Your task to perform on an android device: Clear all items from cart on amazon. Search for apple airpods on amazon, select the first entry, add it to the cart, then select checkout. Image 0: 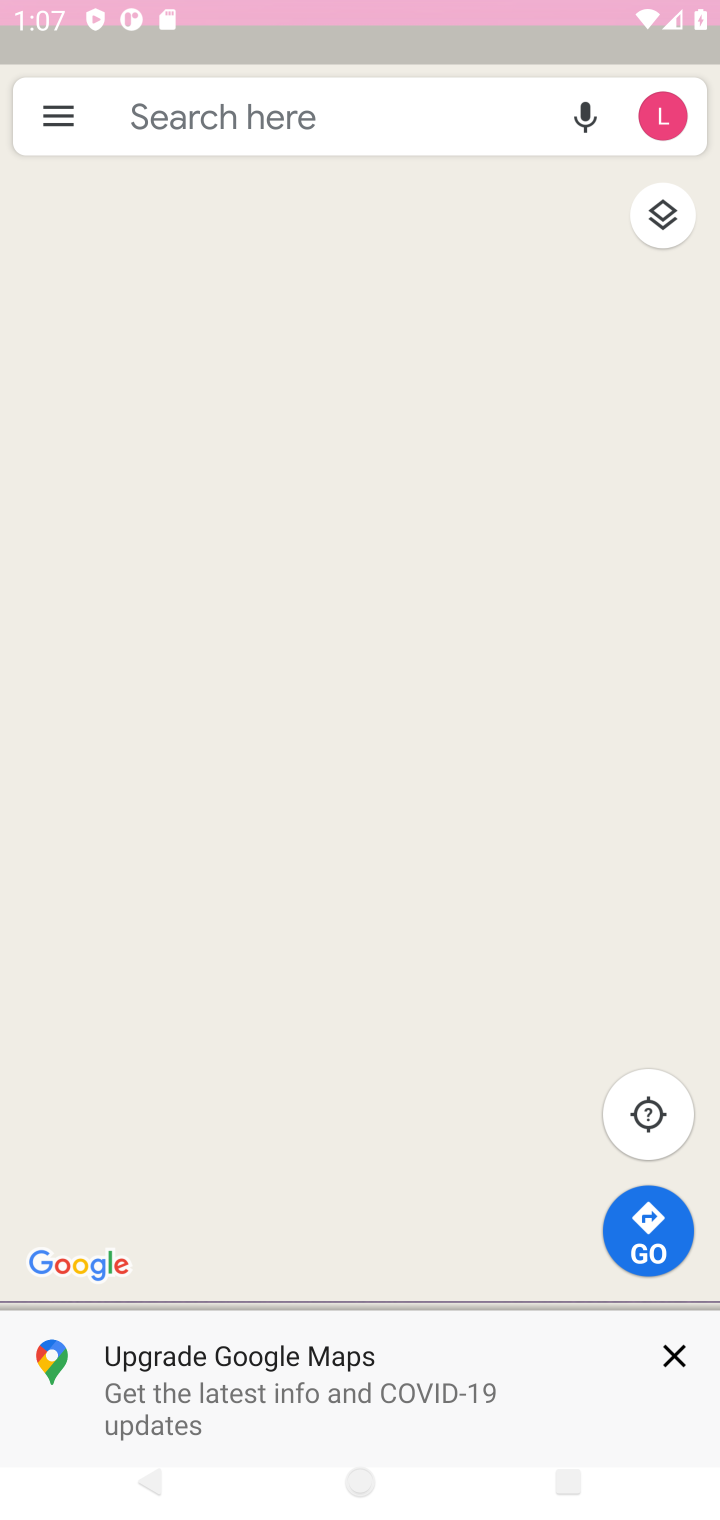
Step 0: press home button
Your task to perform on an android device: Clear all items from cart on amazon. Search for apple airpods on amazon, select the first entry, add it to the cart, then select checkout. Image 1: 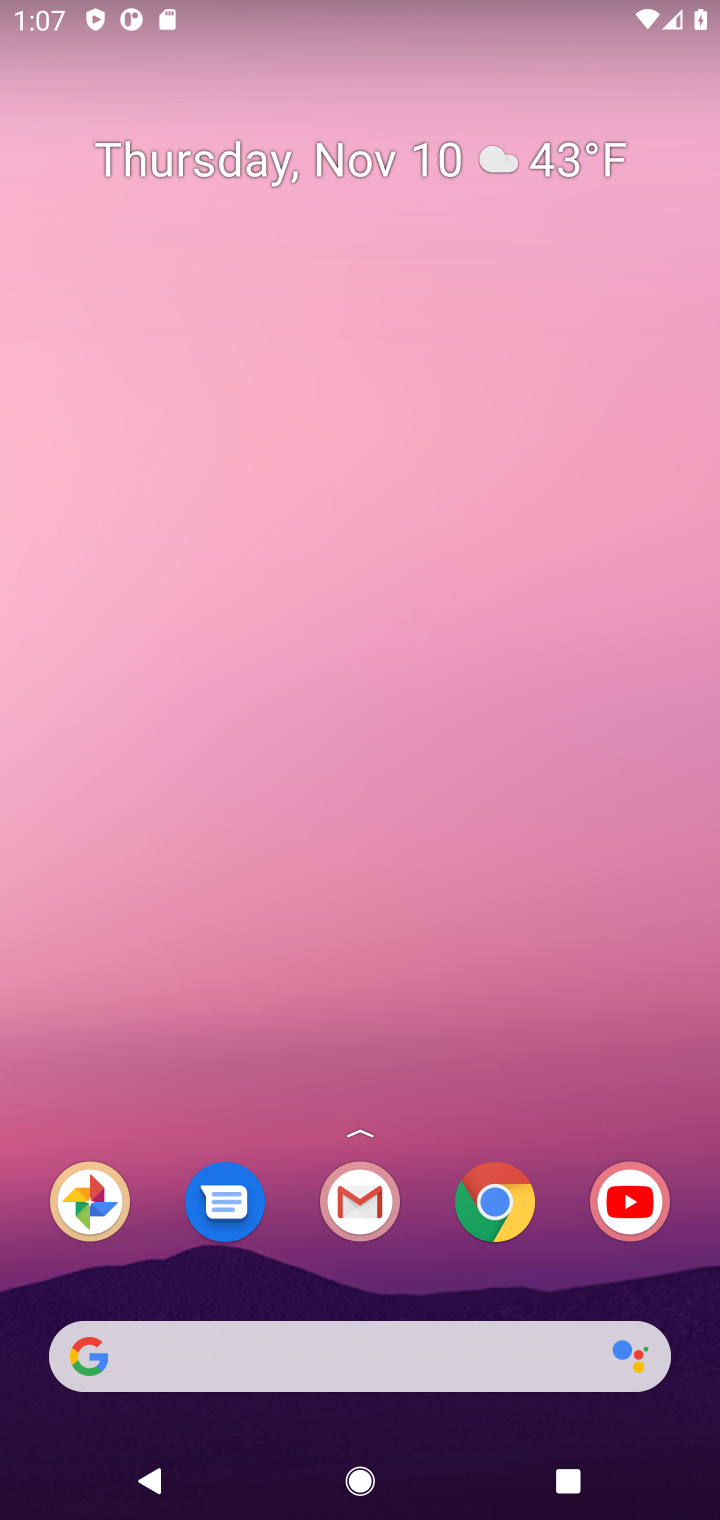
Step 1: click (497, 1196)
Your task to perform on an android device: Clear all items from cart on amazon. Search for apple airpods on amazon, select the first entry, add it to the cart, then select checkout. Image 2: 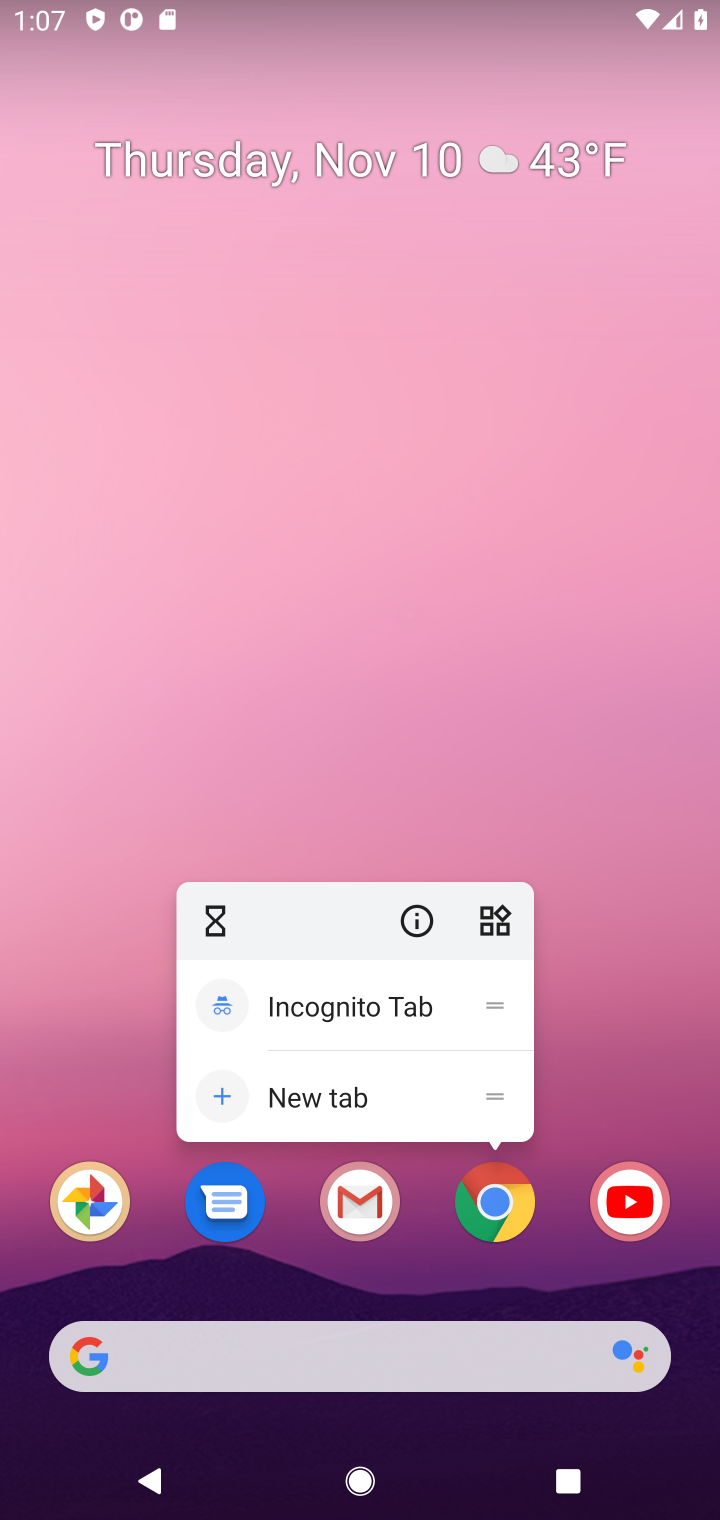
Step 2: click (504, 1201)
Your task to perform on an android device: Clear all items from cart on amazon. Search for apple airpods on amazon, select the first entry, add it to the cart, then select checkout. Image 3: 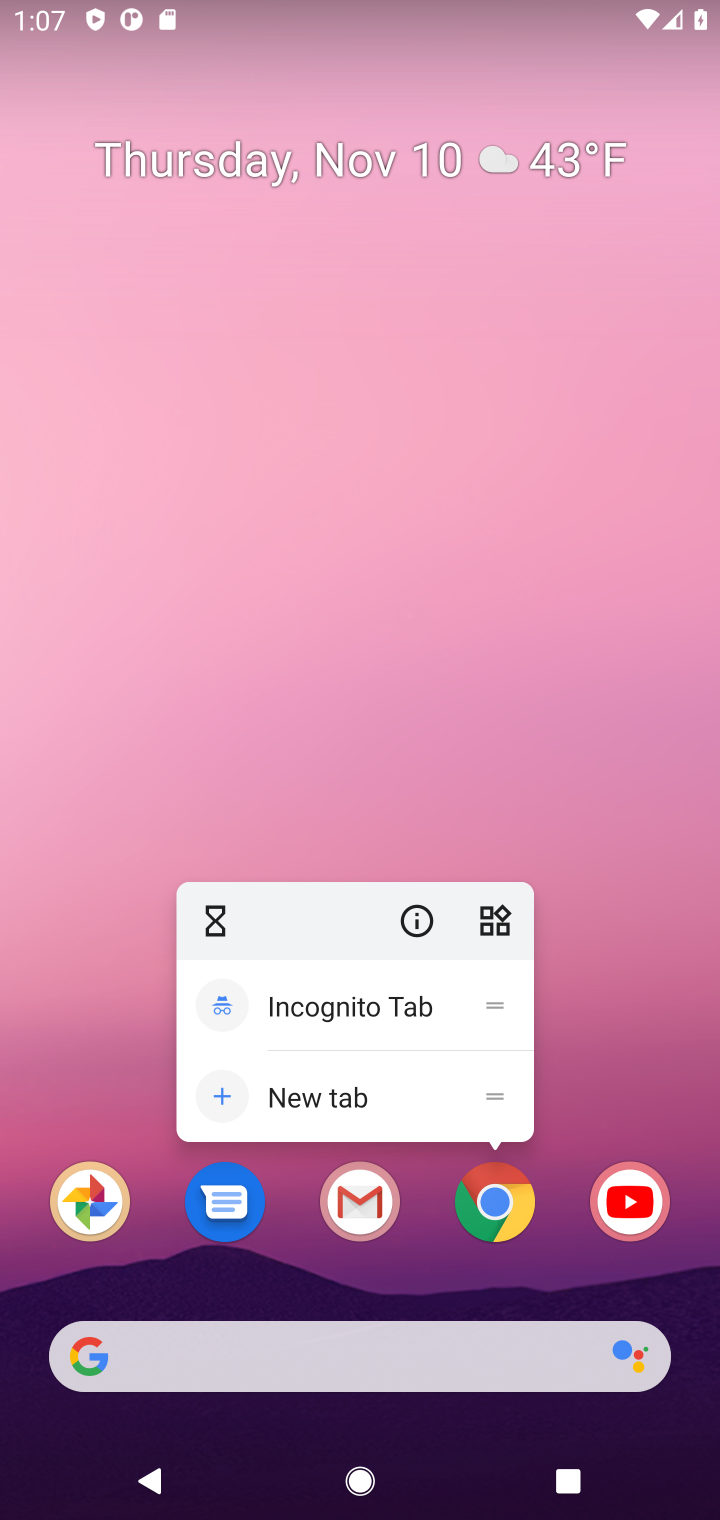
Step 3: click (504, 1201)
Your task to perform on an android device: Clear all items from cart on amazon. Search for apple airpods on amazon, select the first entry, add it to the cart, then select checkout. Image 4: 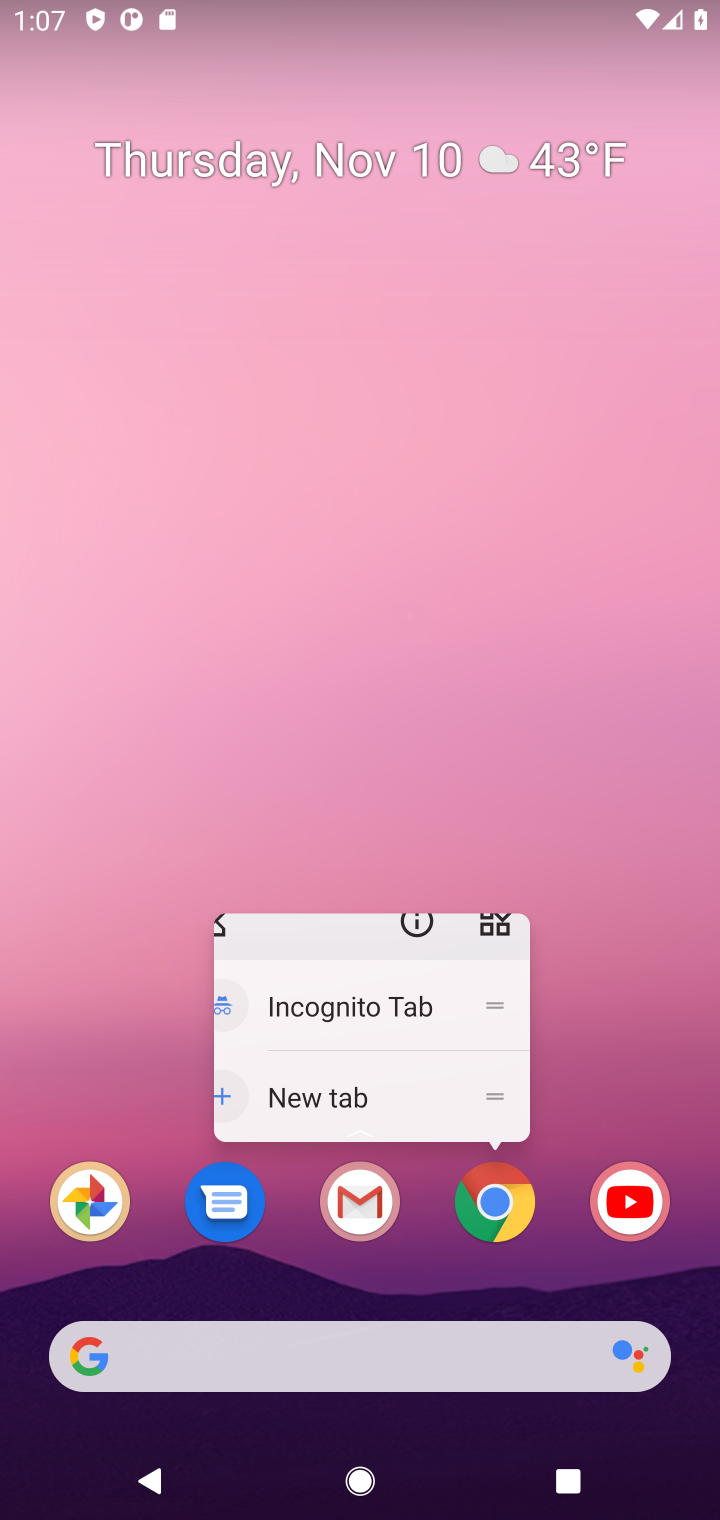
Step 4: click (504, 1201)
Your task to perform on an android device: Clear all items from cart on amazon. Search for apple airpods on amazon, select the first entry, add it to the cart, then select checkout. Image 5: 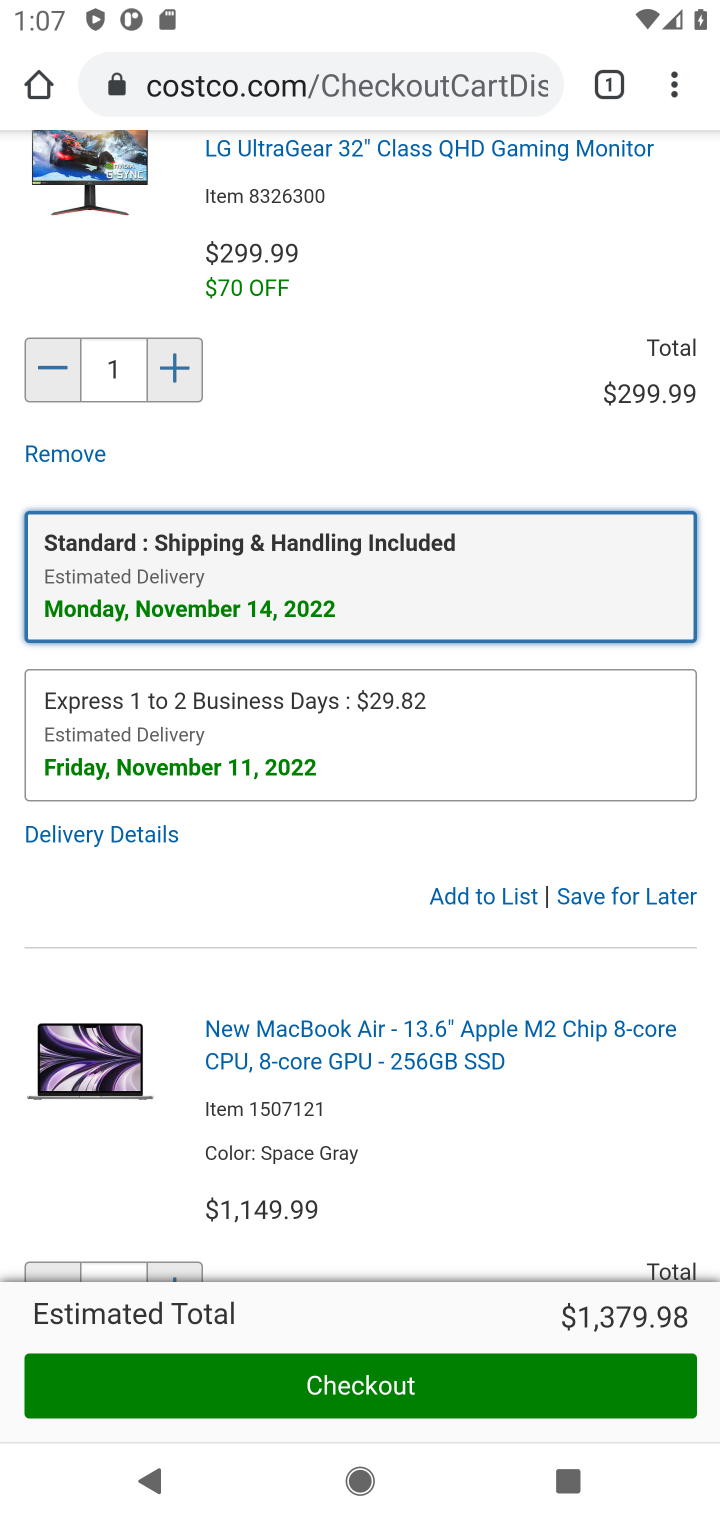
Step 5: click (282, 75)
Your task to perform on an android device: Clear all items from cart on amazon. Search for apple airpods on amazon, select the first entry, add it to the cart, then select checkout. Image 6: 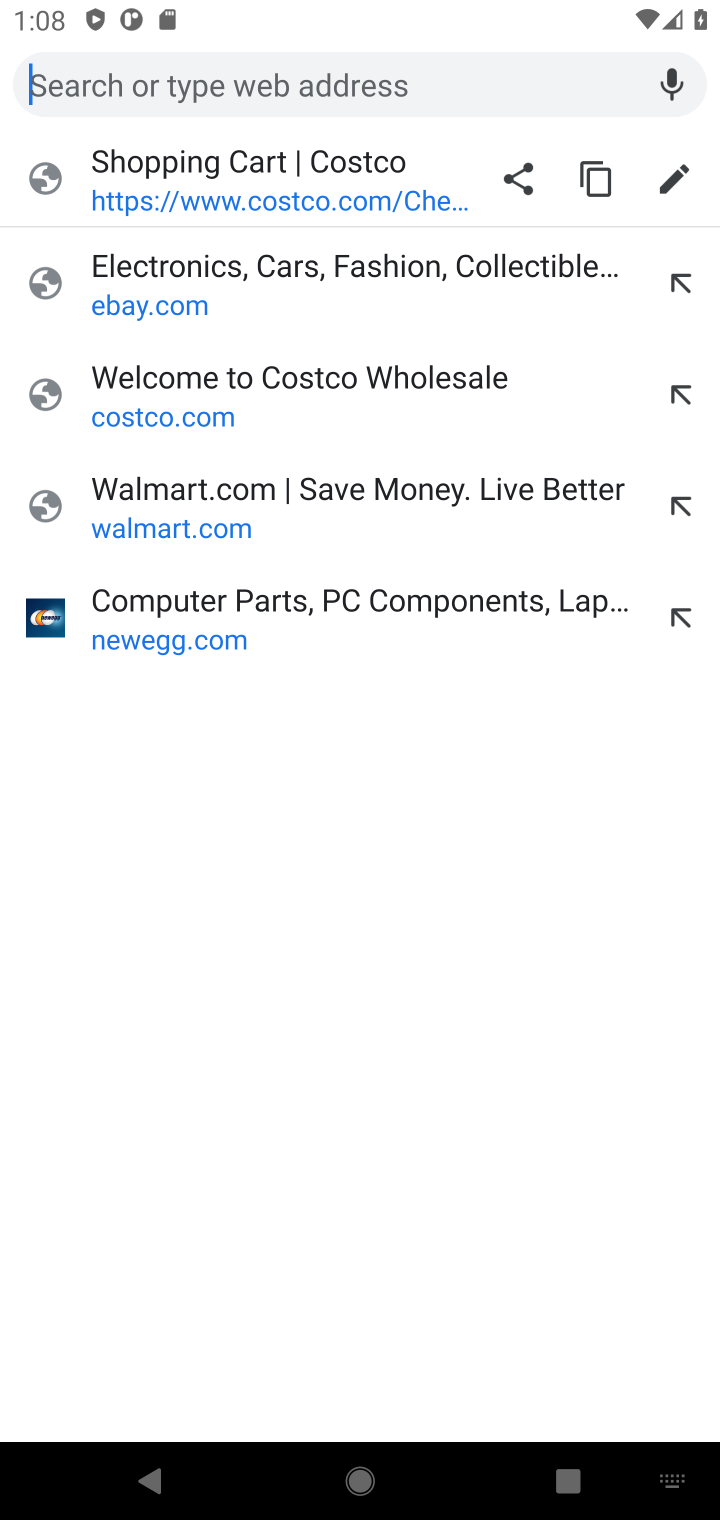
Step 6: type "amazon"
Your task to perform on an android device: Clear all items from cart on amazon. Search for apple airpods on amazon, select the first entry, add it to the cart, then select checkout. Image 7: 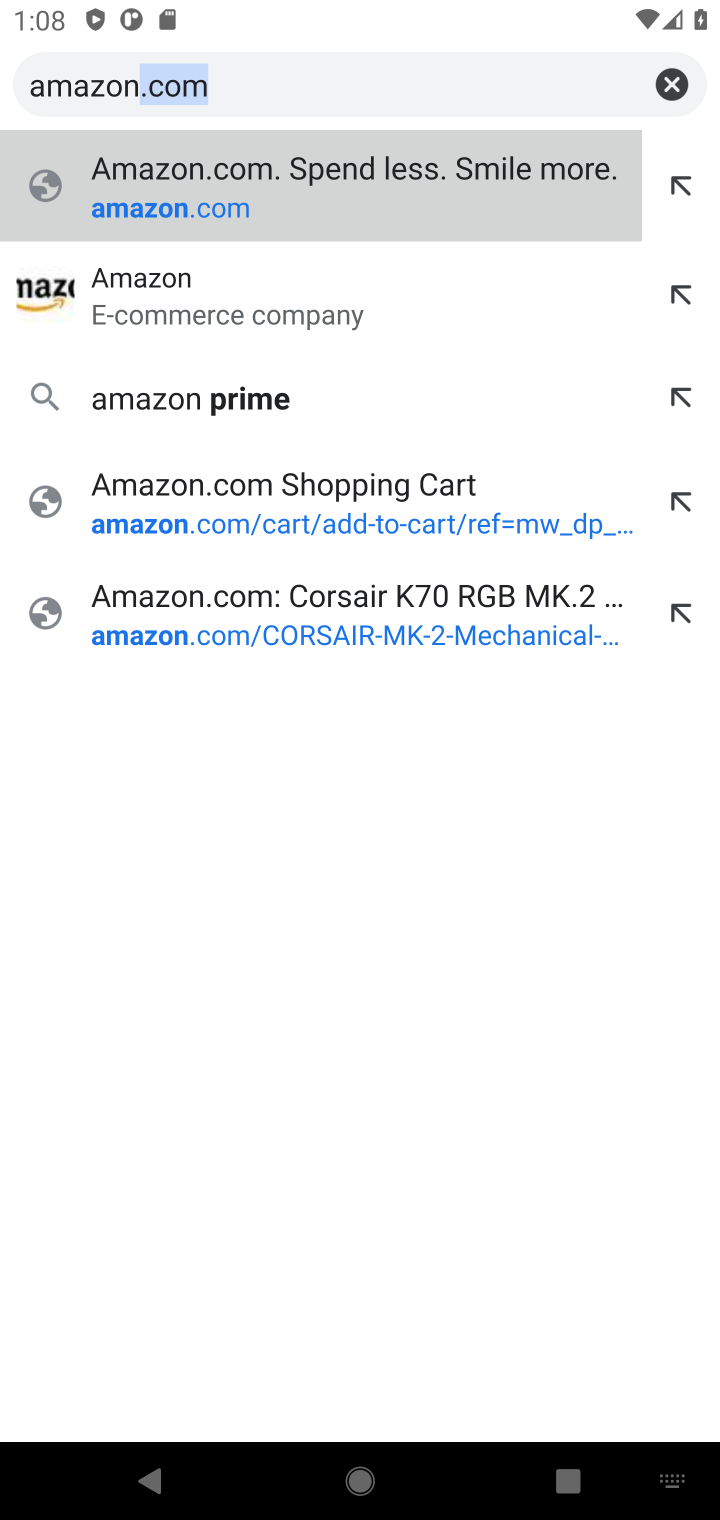
Step 7: press enter
Your task to perform on an android device: Clear all items from cart on amazon. Search for apple airpods on amazon, select the first entry, add it to the cart, then select checkout. Image 8: 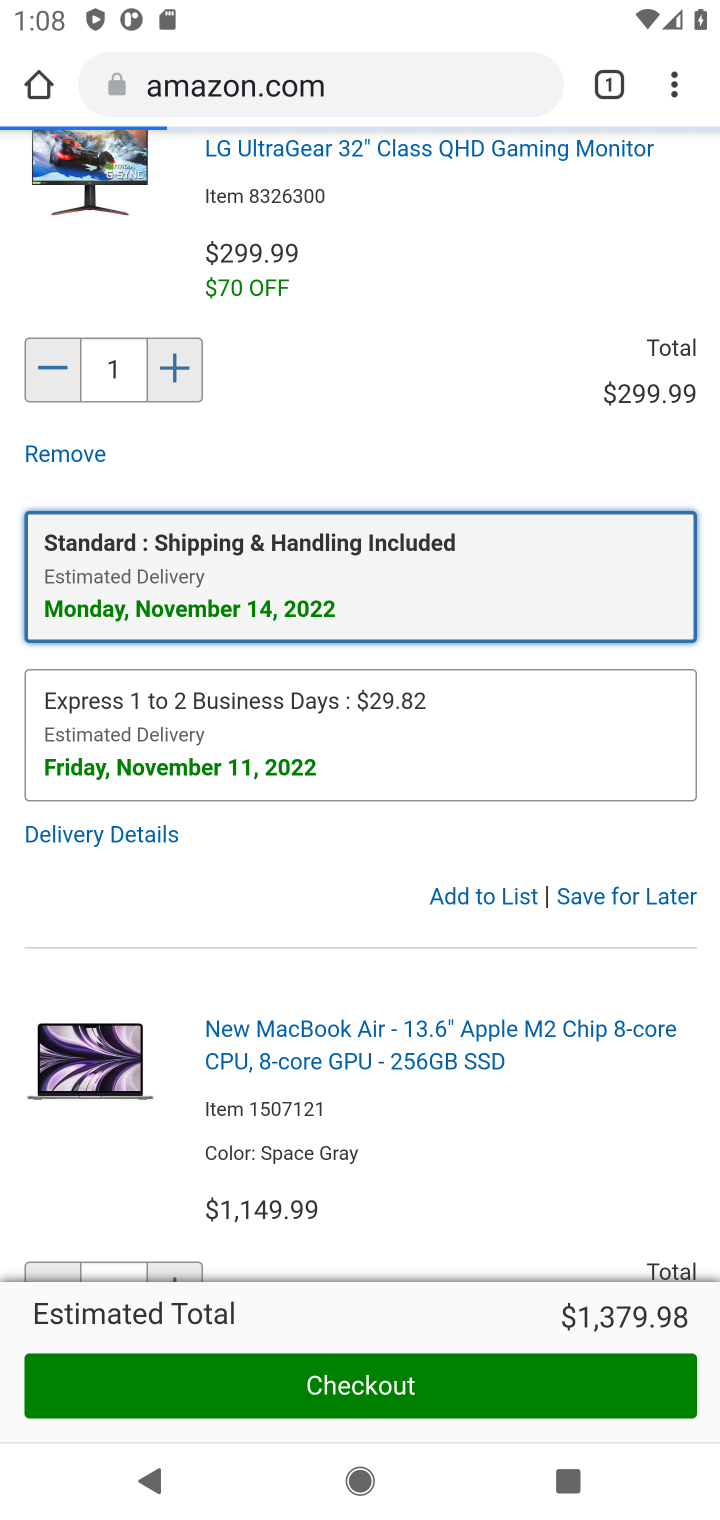
Step 8: click (449, 91)
Your task to perform on an android device: Clear all items from cart on amazon. Search for apple airpods on amazon, select the first entry, add it to the cart, then select checkout. Image 9: 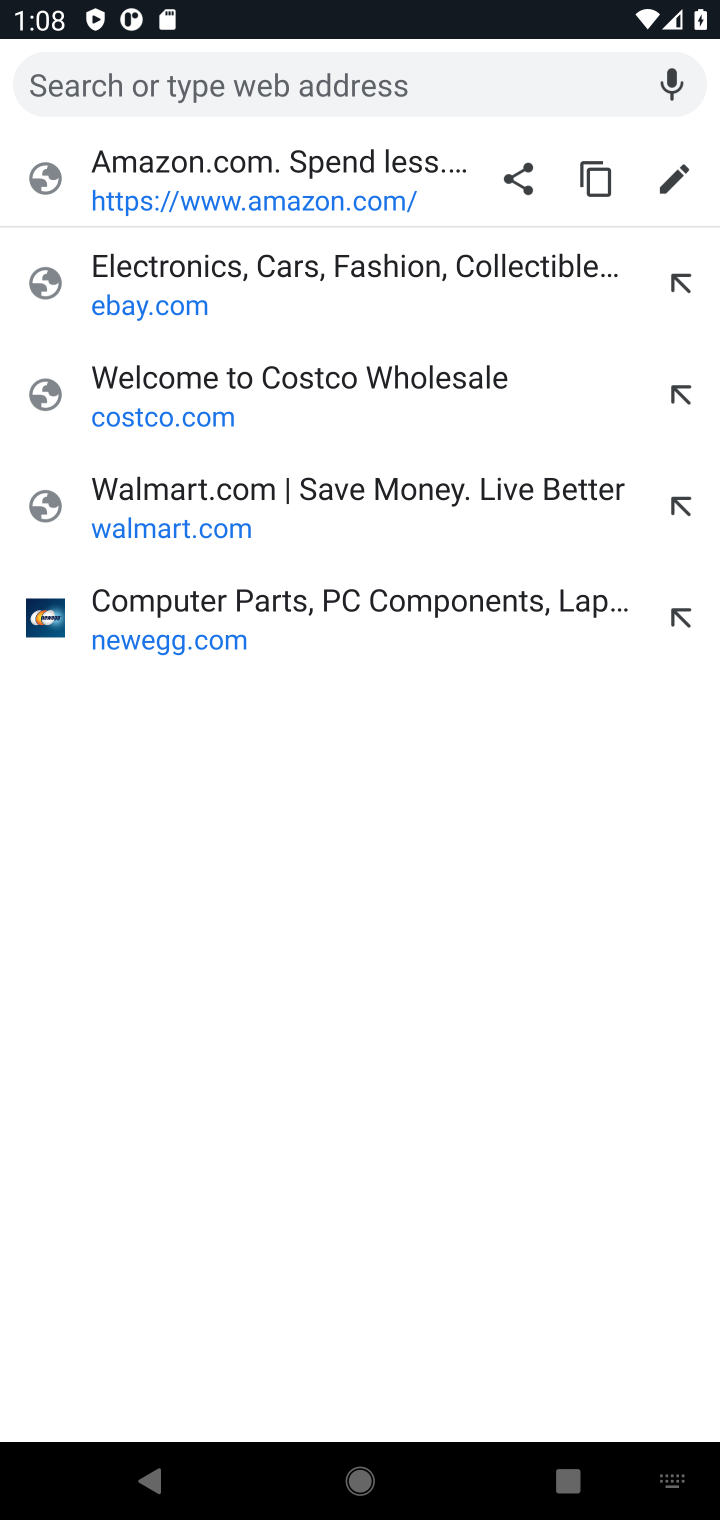
Step 9: click (365, 151)
Your task to perform on an android device: Clear all items from cart on amazon. Search for apple airpods on amazon, select the first entry, add it to the cart, then select checkout. Image 10: 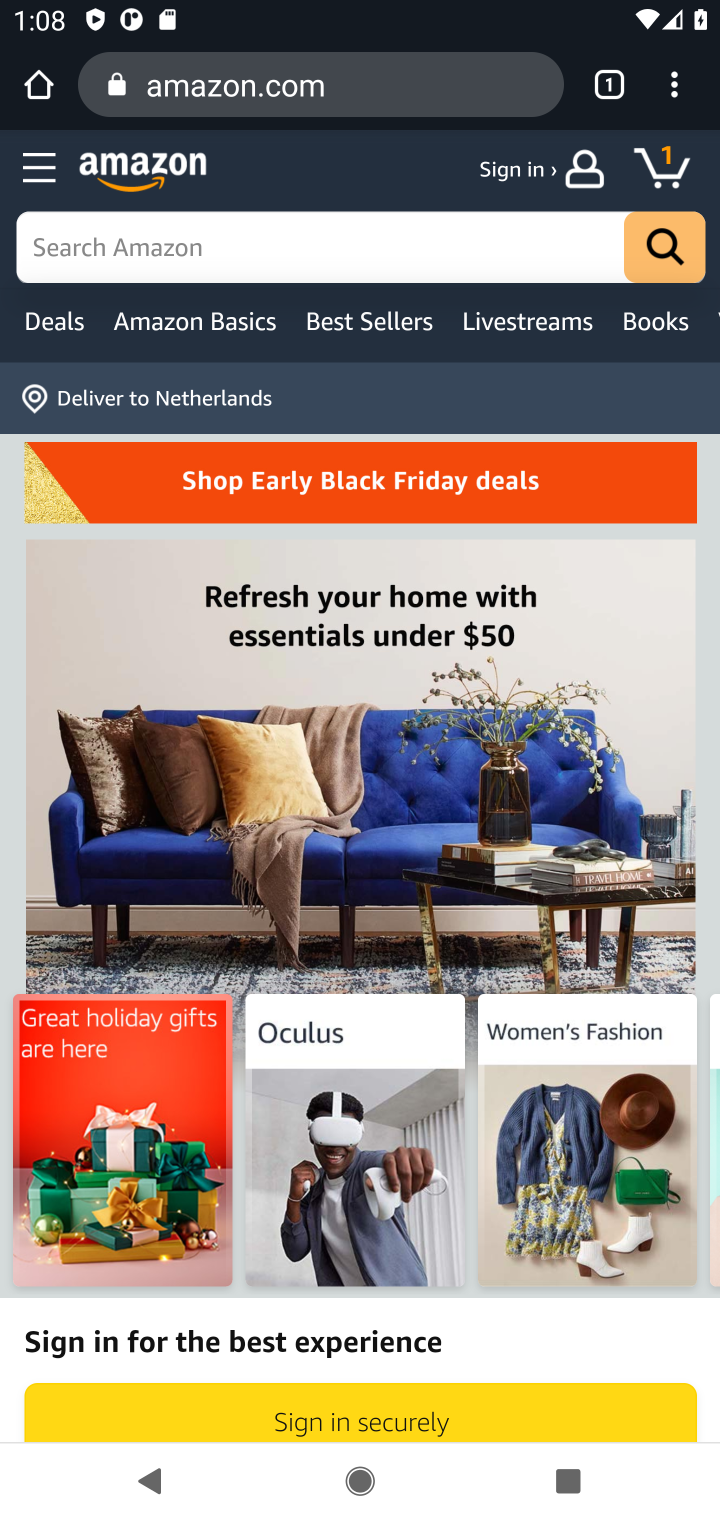
Step 10: click (676, 171)
Your task to perform on an android device: Clear all items from cart on amazon. Search for apple airpods on amazon, select the first entry, add it to the cart, then select checkout. Image 11: 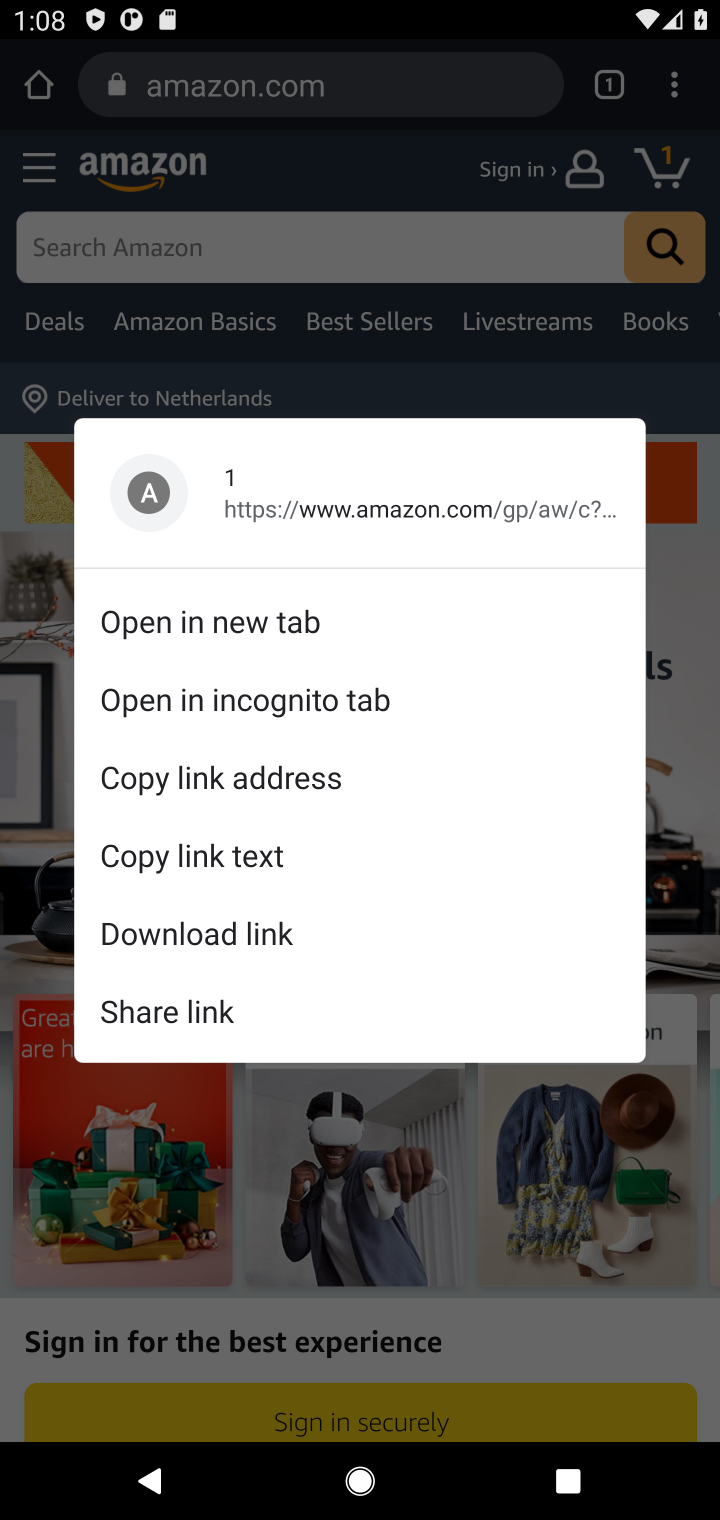
Step 11: click (668, 181)
Your task to perform on an android device: Clear all items from cart on amazon. Search for apple airpods on amazon, select the first entry, add it to the cart, then select checkout. Image 12: 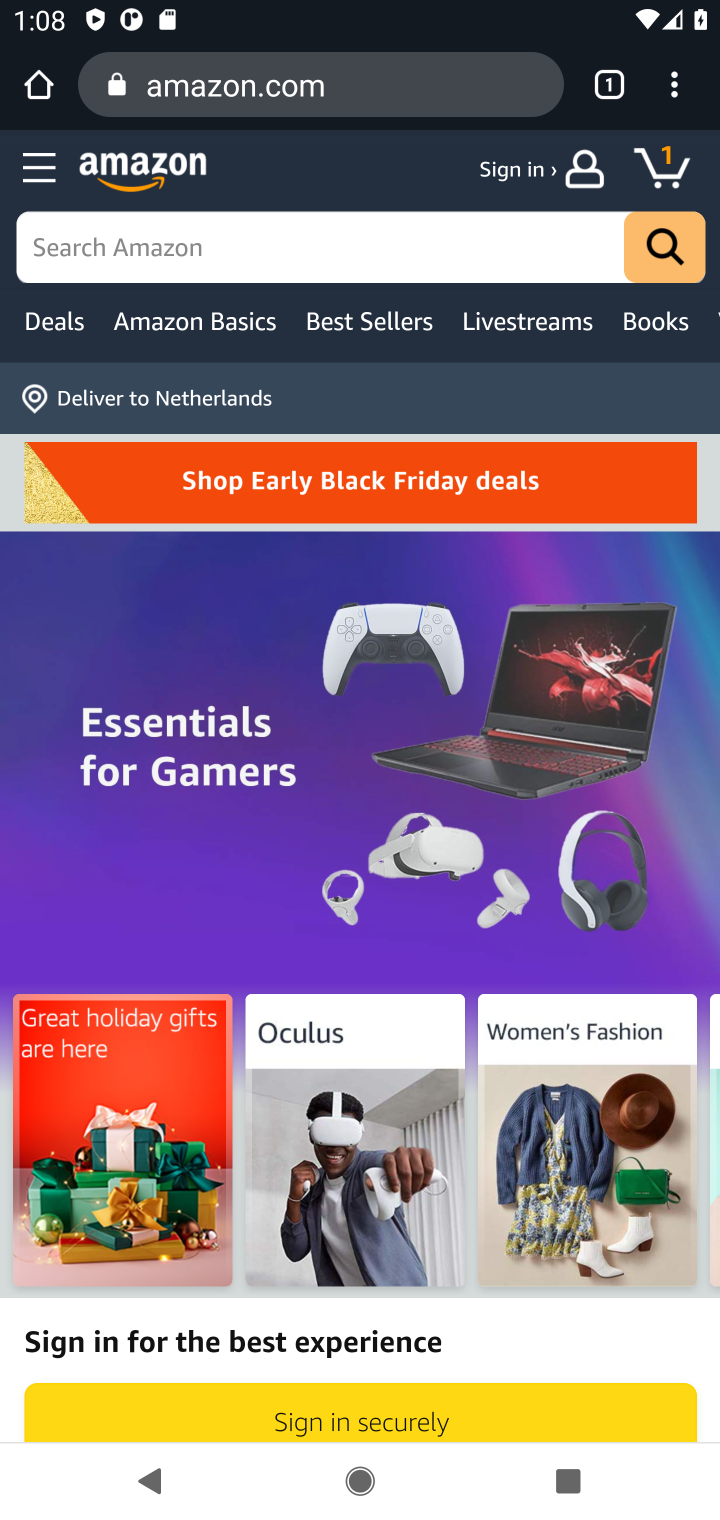
Step 12: click (668, 181)
Your task to perform on an android device: Clear all items from cart on amazon. Search for apple airpods on amazon, select the first entry, add it to the cart, then select checkout. Image 13: 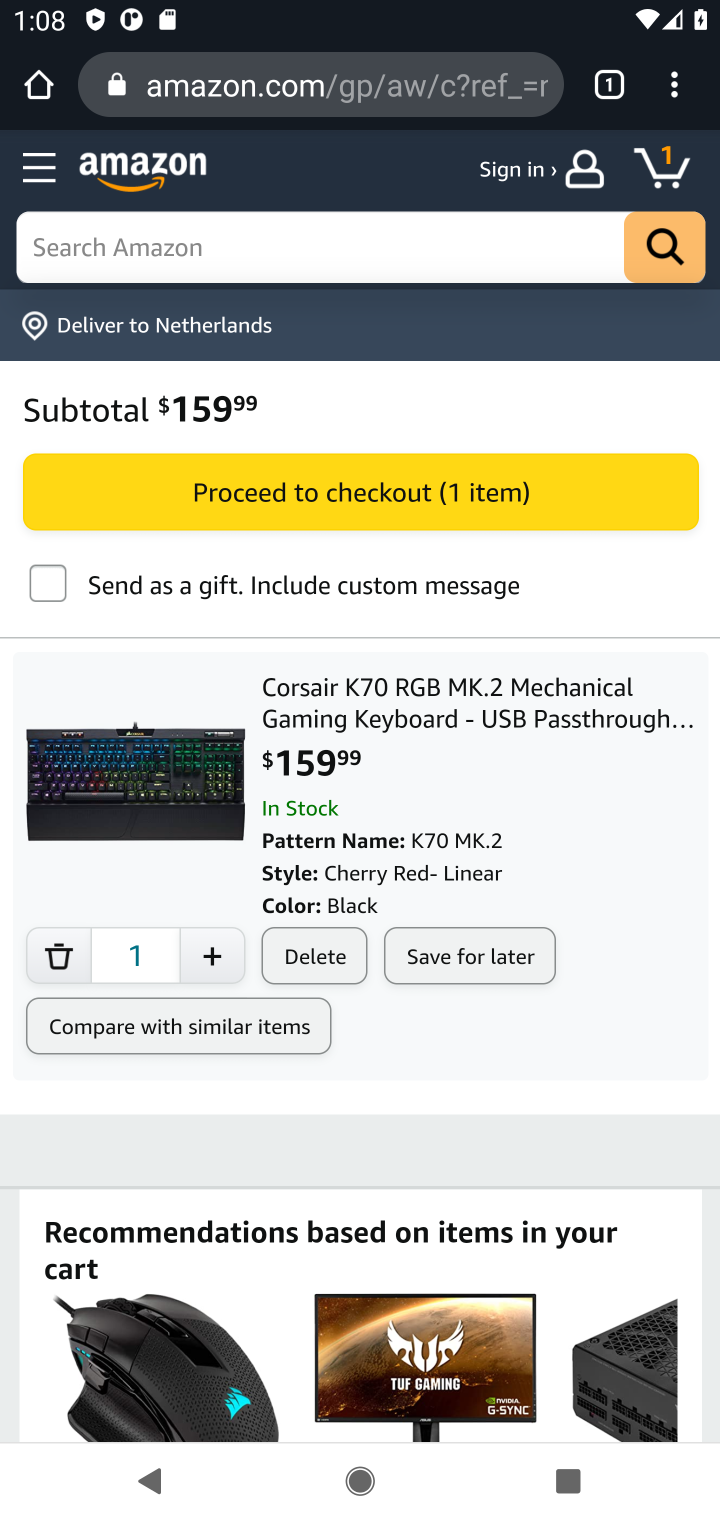
Step 13: click (312, 952)
Your task to perform on an android device: Clear all items from cart on amazon. Search for apple airpods on amazon, select the first entry, add it to the cart, then select checkout. Image 14: 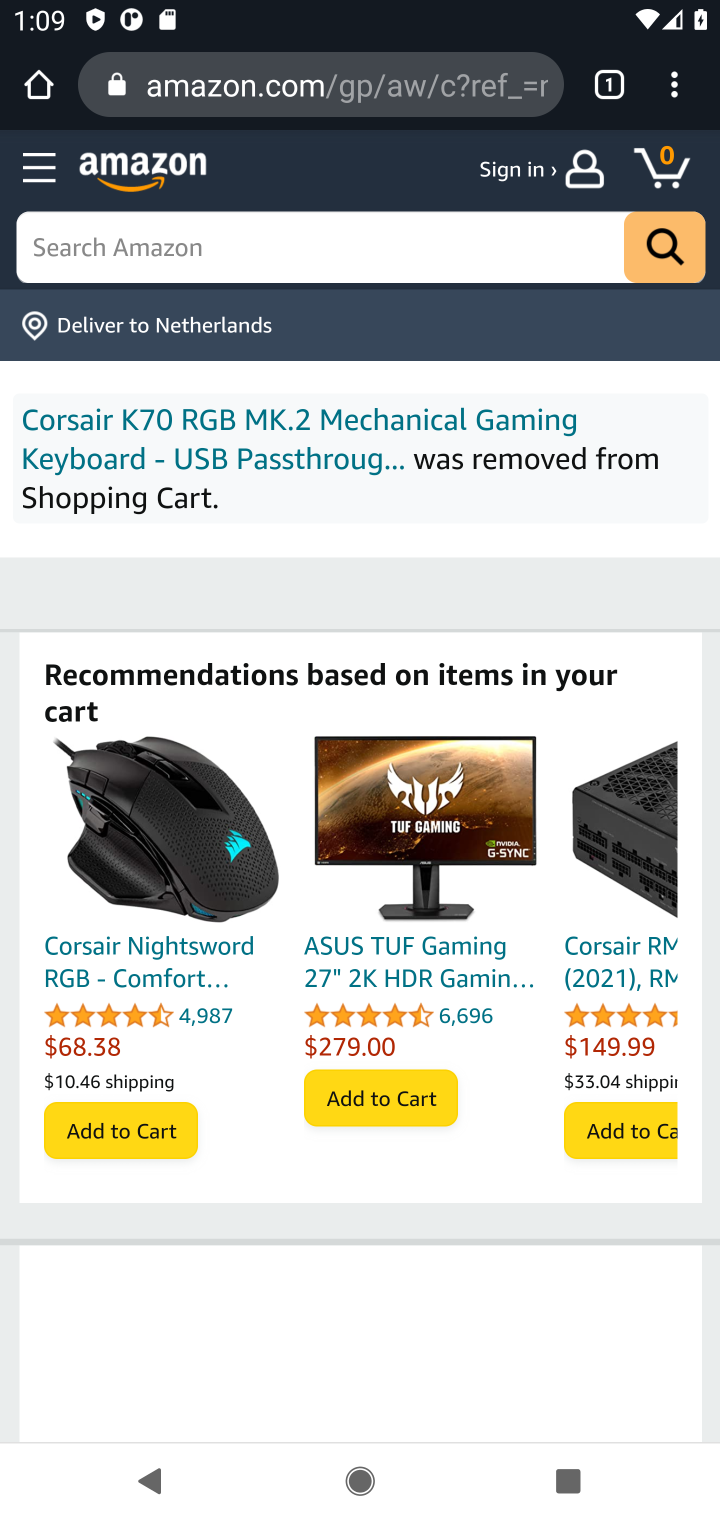
Step 14: click (541, 262)
Your task to perform on an android device: Clear all items from cart on amazon. Search for apple airpods on amazon, select the first entry, add it to the cart, then select checkout. Image 15: 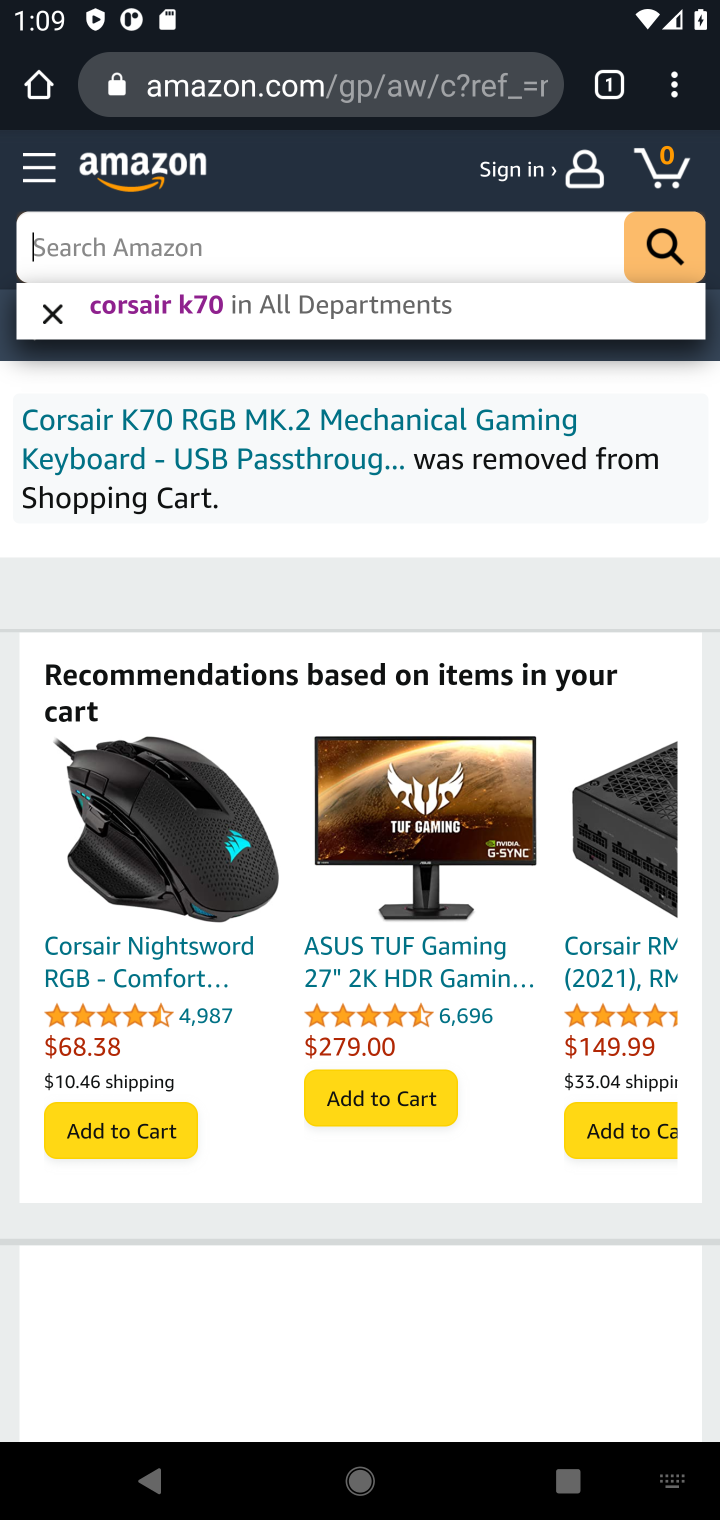
Step 15: type "apple airpods"
Your task to perform on an android device: Clear all items from cart on amazon. Search for apple airpods on amazon, select the first entry, add it to the cart, then select checkout. Image 16: 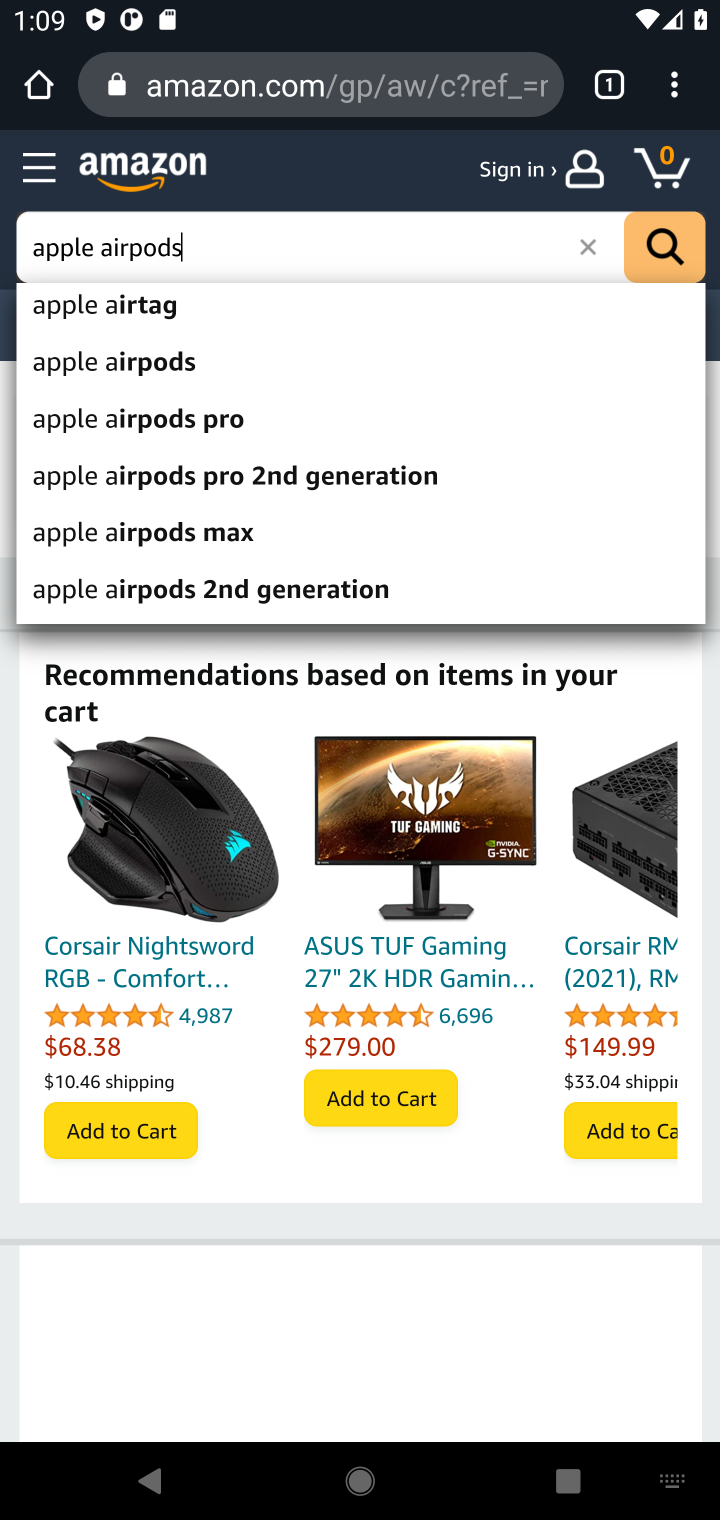
Step 16: press enter
Your task to perform on an android device: Clear all items from cart on amazon. Search for apple airpods on amazon, select the first entry, add it to the cart, then select checkout. Image 17: 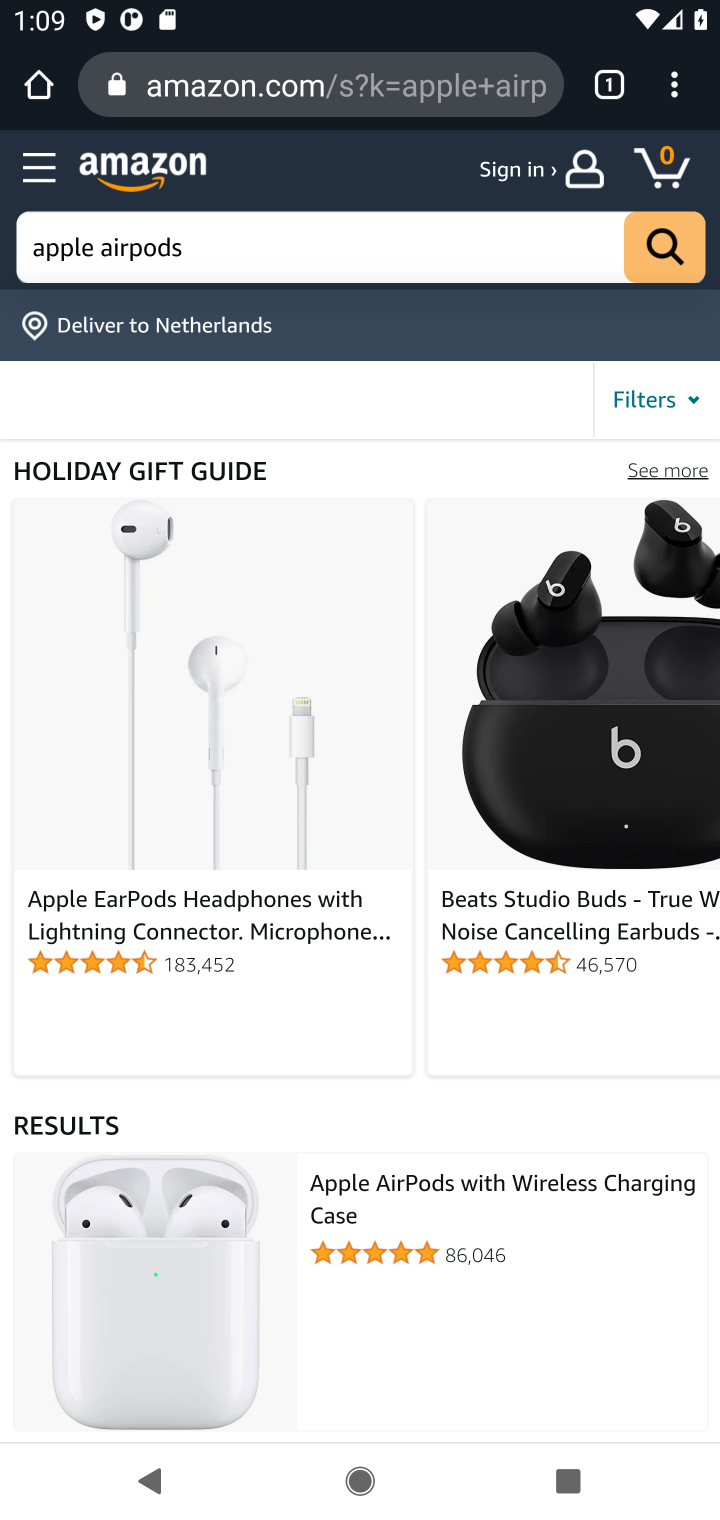
Step 17: drag from (246, 1058) to (415, 612)
Your task to perform on an android device: Clear all items from cart on amazon. Search for apple airpods on amazon, select the first entry, add it to the cart, then select checkout. Image 18: 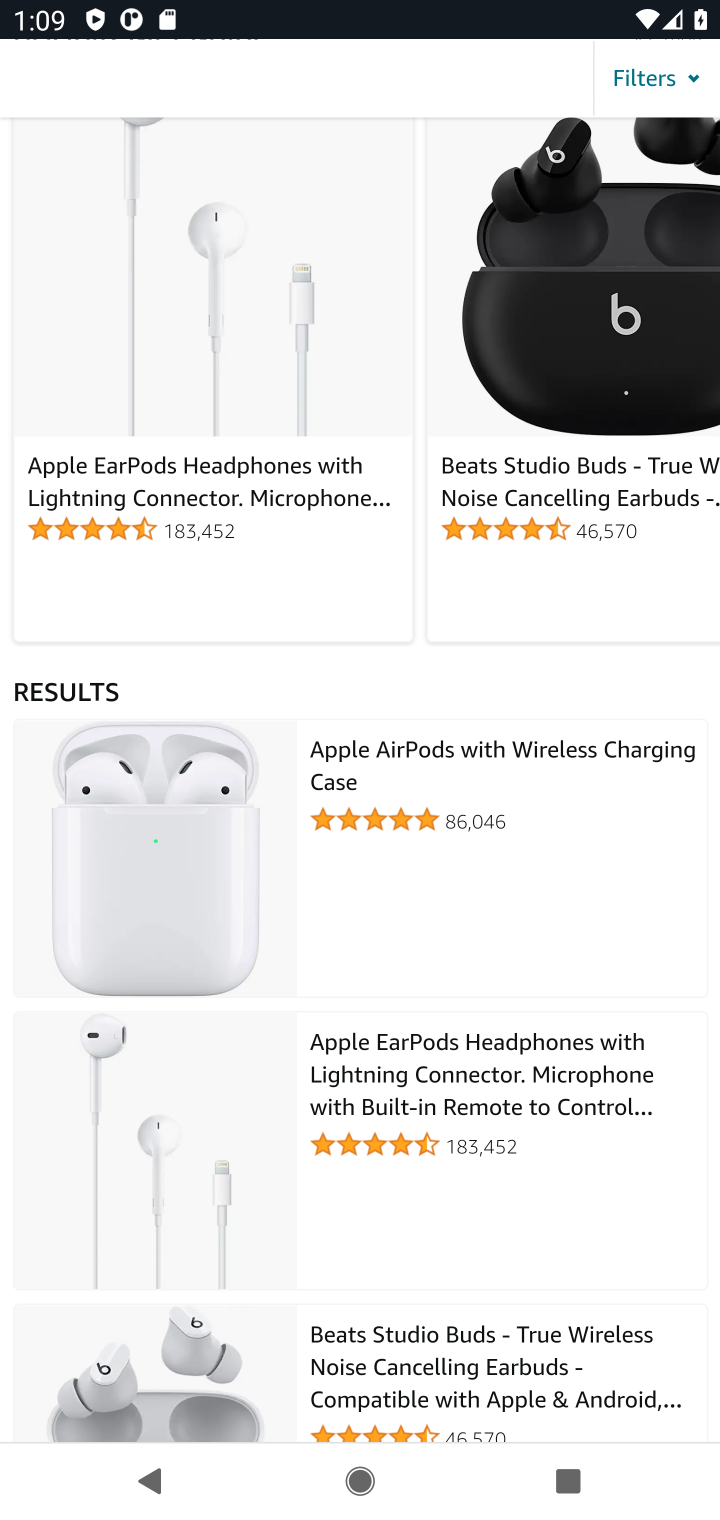
Step 18: click (157, 866)
Your task to perform on an android device: Clear all items from cart on amazon. Search for apple airpods on amazon, select the first entry, add it to the cart, then select checkout. Image 19: 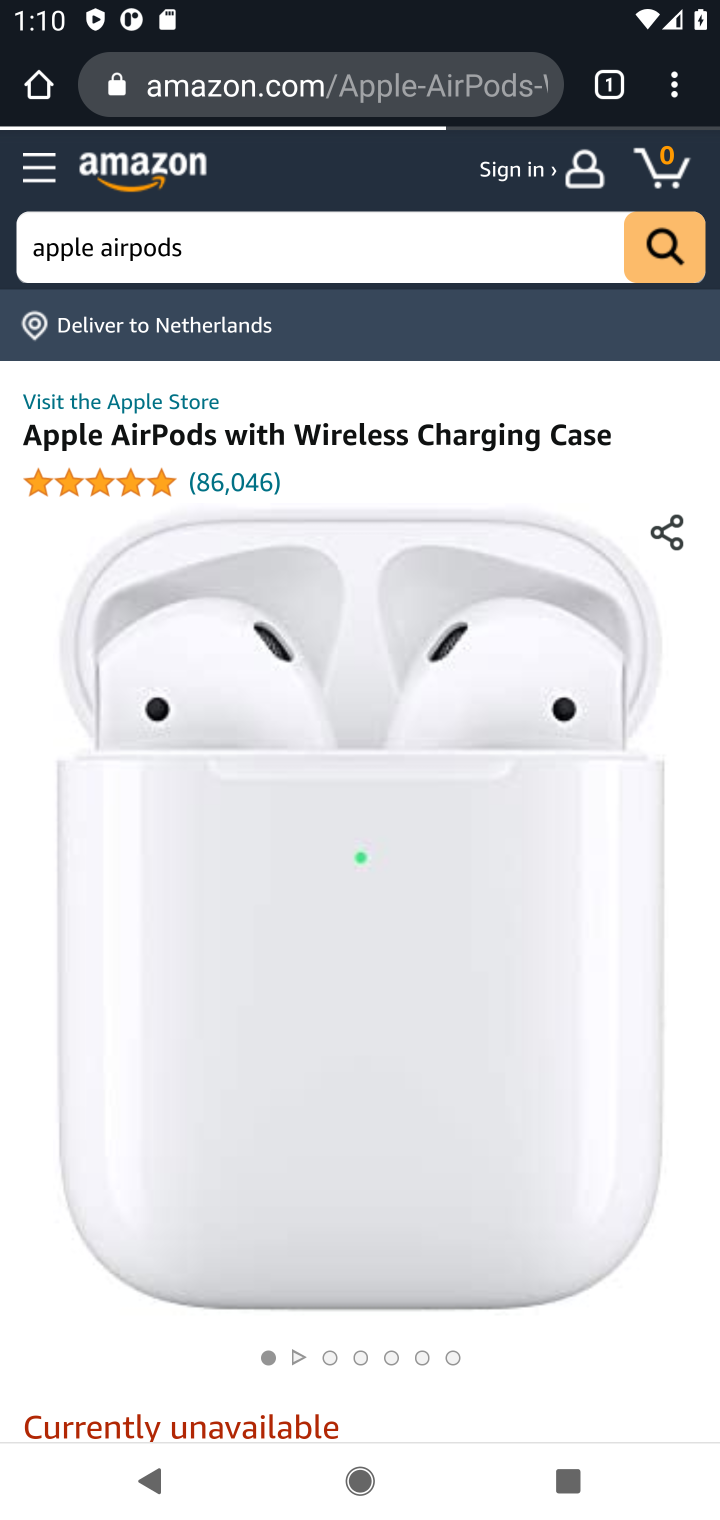
Step 19: drag from (482, 736) to (543, 517)
Your task to perform on an android device: Clear all items from cart on amazon. Search for apple airpods on amazon, select the first entry, add it to the cart, then select checkout. Image 20: 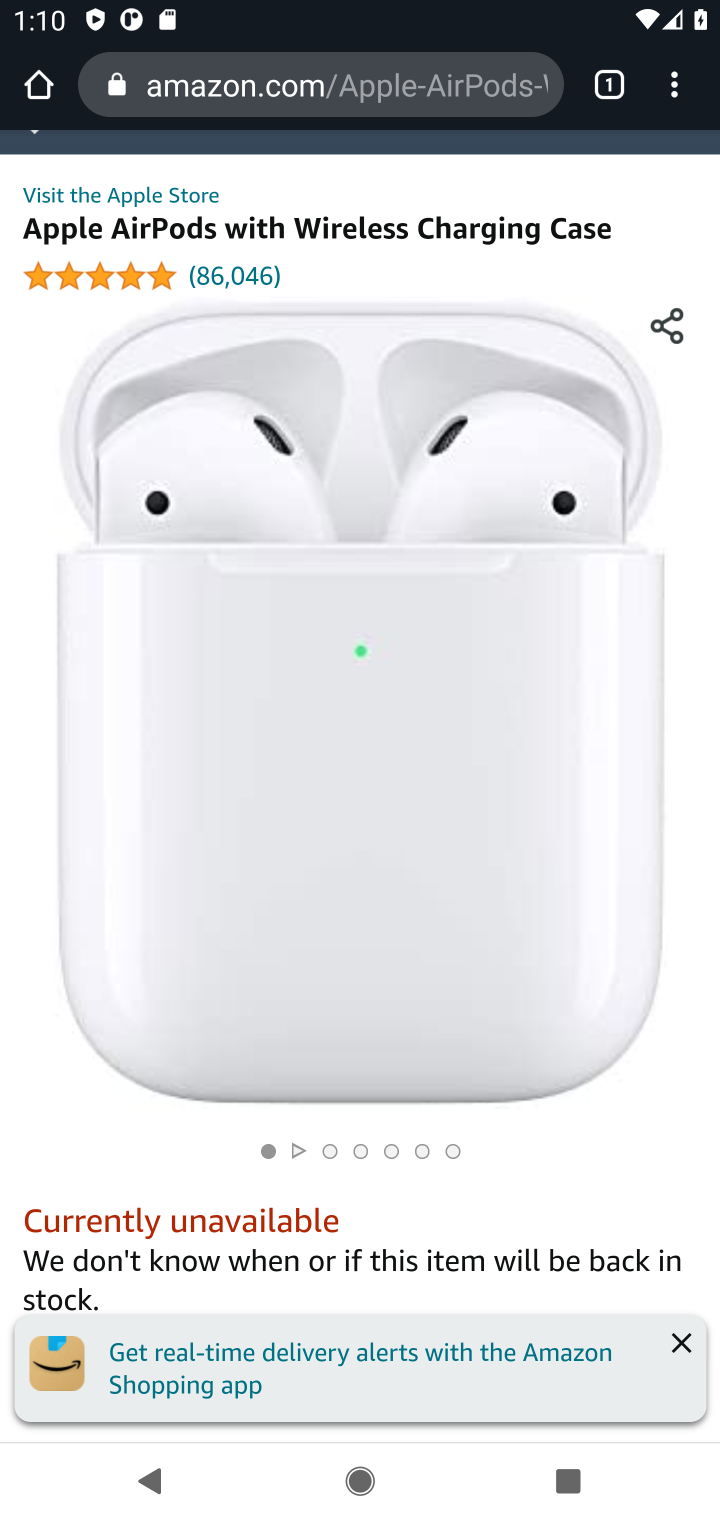
Step 20: press back button
Your task to perform on an android device: Clear all items from cart on amazon. Search for apple airpods on amazon, select the first entry, add it to the cart, then select checkout. Image 21: 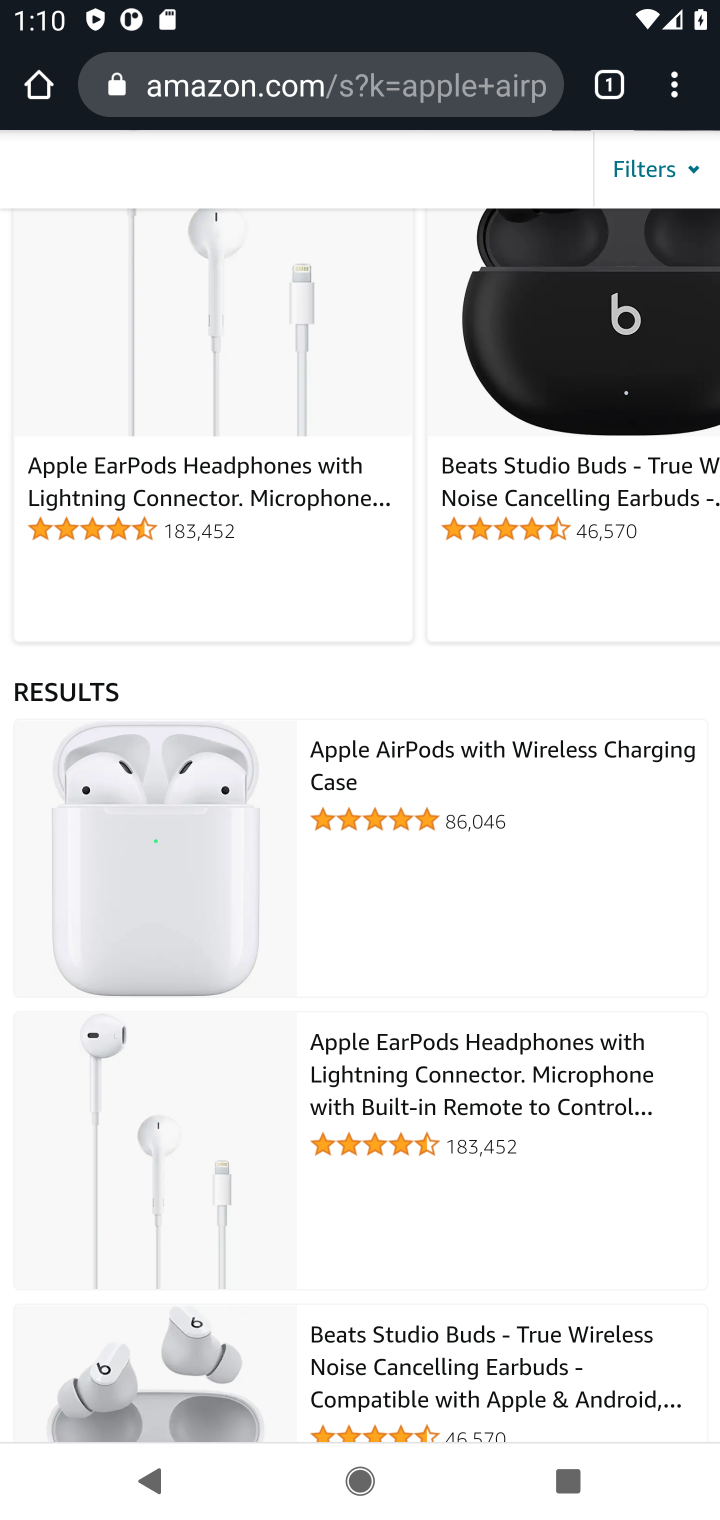
Step 21: drag from (481, 1229) to (523, 815)
Your task to perform on an android device: Clear all items from cart on amazon. Search for apple airpods on amazon, select the first entry, add it to the cart, then select checkout. Image 22: 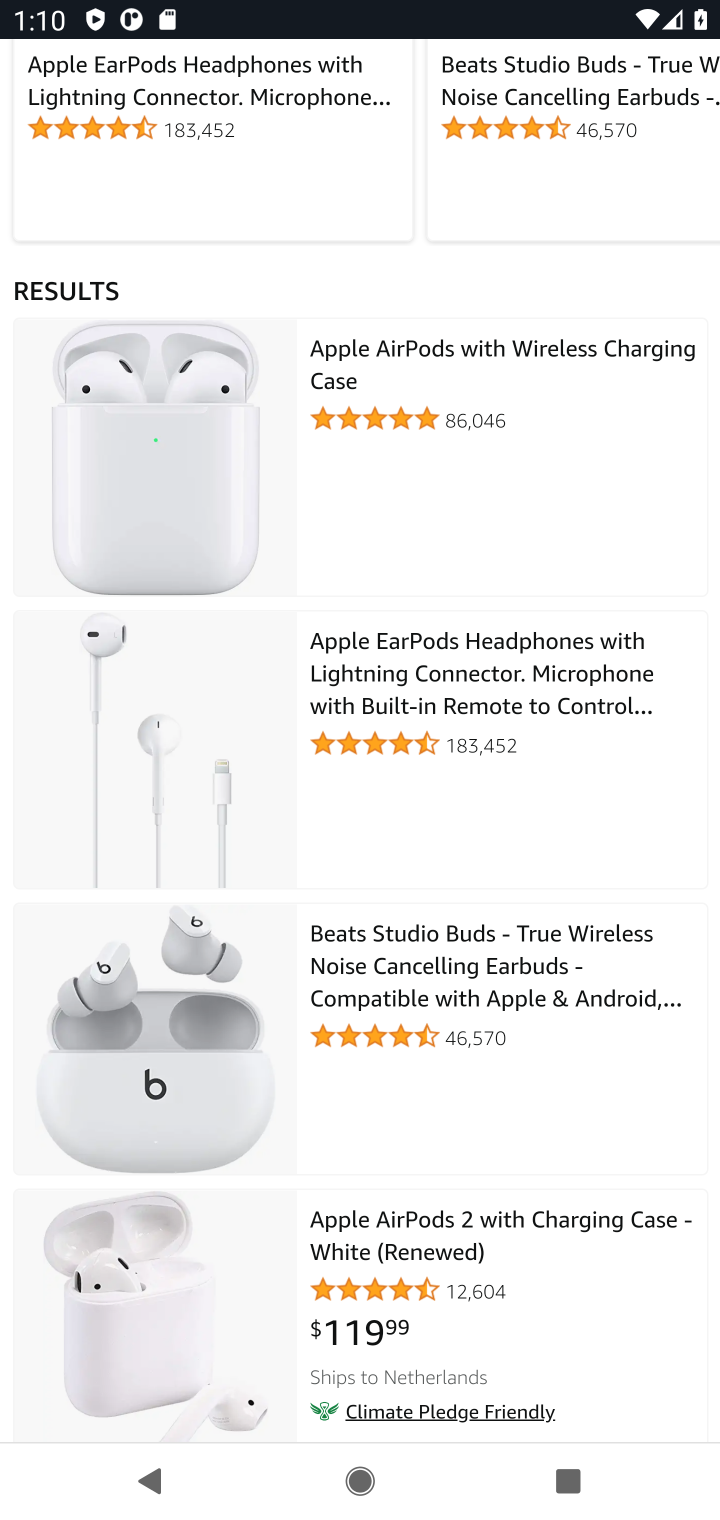
Step 22: click (114, 1283)
Your task to perform on an android device: Clear all items from cart on amazon. Search for apple airpods on amazon, select the first entry, add it to the cart, then select checkout. Image 23: 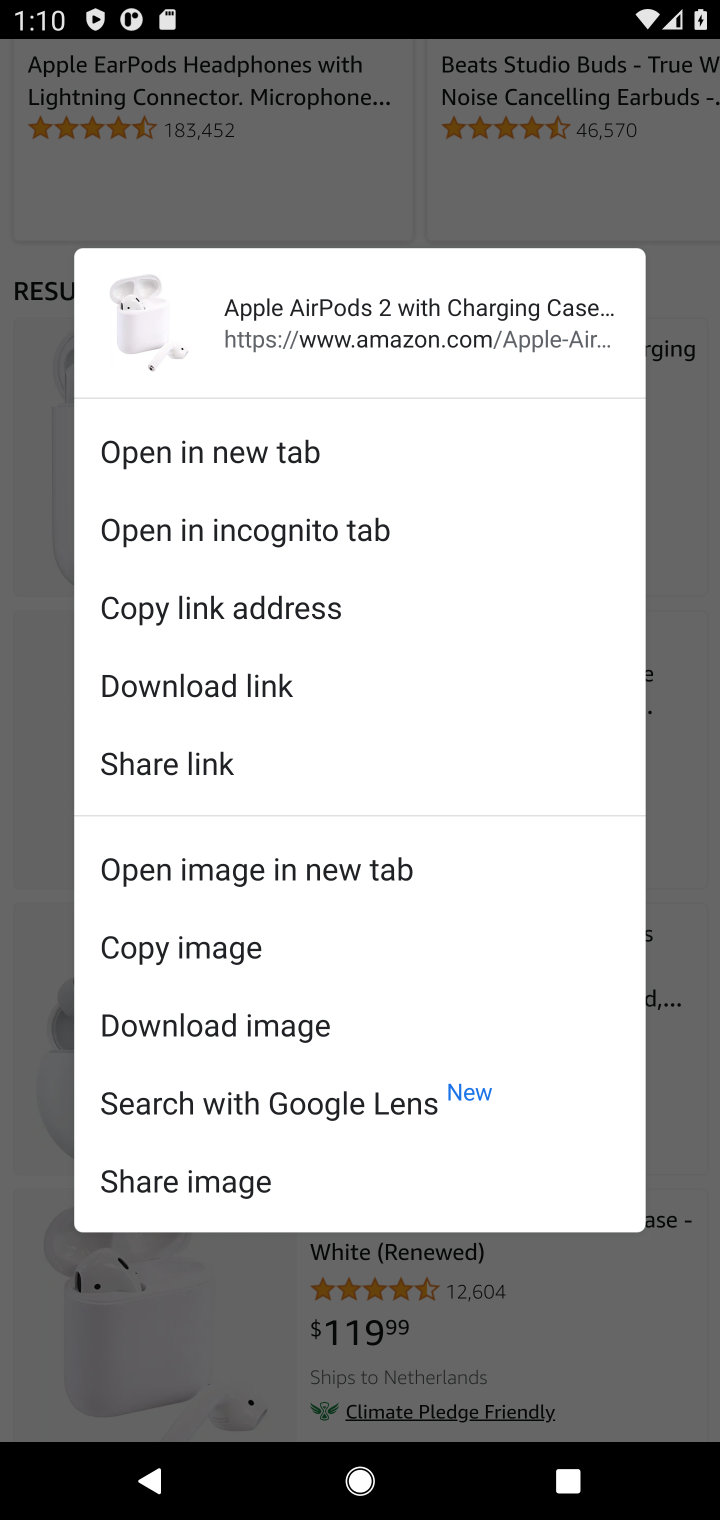
Step 23: click (421, 1342)
Your task to perform on an android device: Clear all items from cart on amazon. Search for apple airpods on amazon, select the first entry, add it to the cart, then select checkout. Image 24: 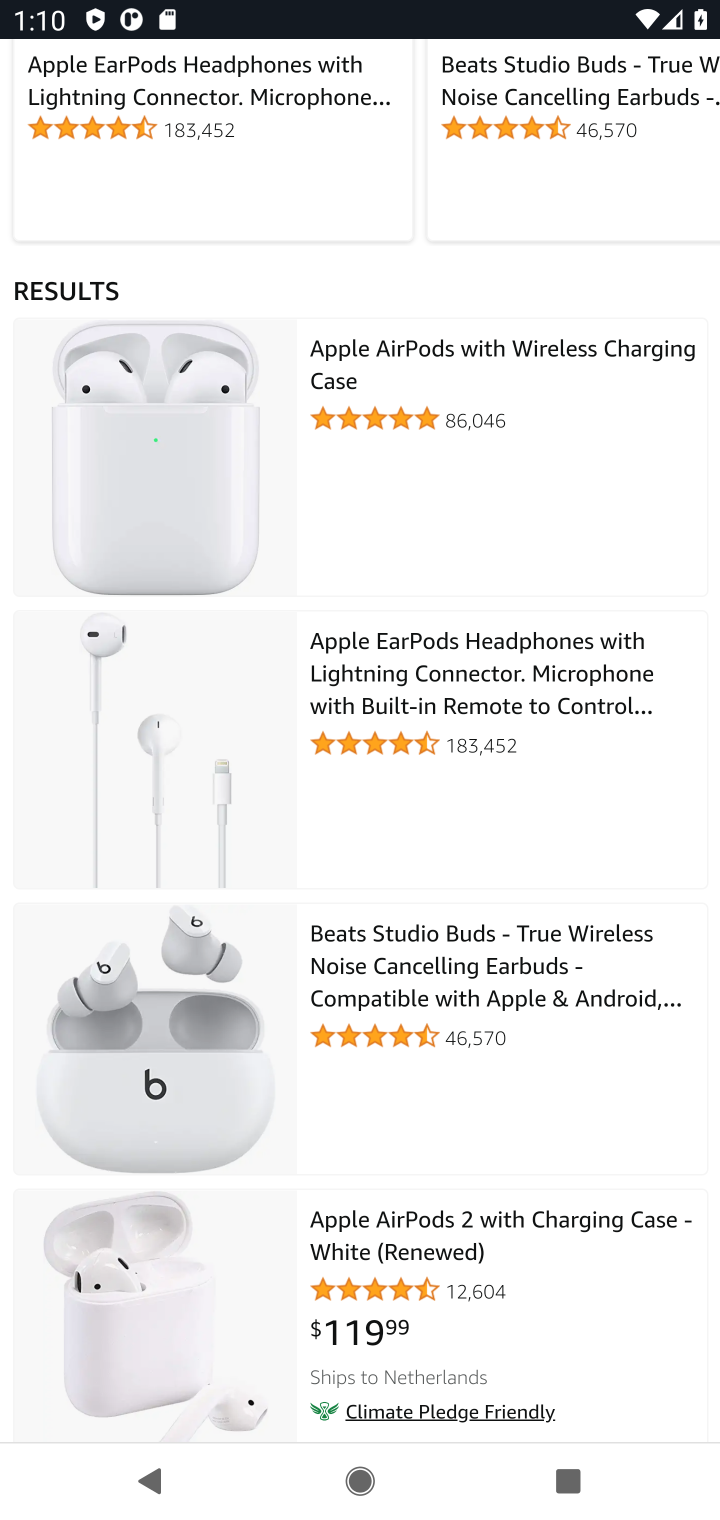
Step 24: click (158, 1276)
Your task to perform on an android device: Clear all items from cart on amazon. Search for apple airpods on amazon, select the first entry, add it to the cart, then select checkout. Image 25: 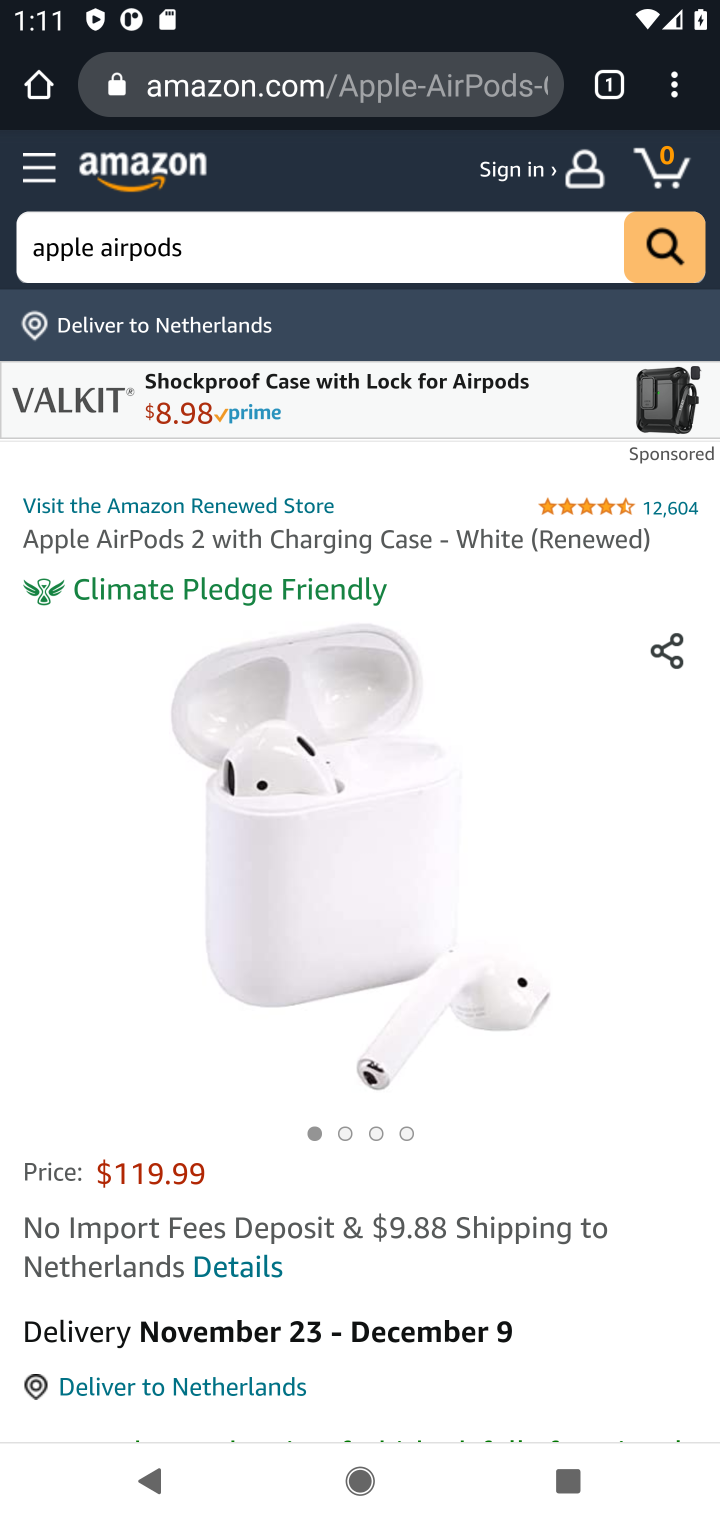
Step 25: drag from (206, 1204) to (382, 697)
Your task to perform on an android device: Clear all items from cart on amazon. Search for apple airpods on amazon, select the first entry, add it to the cart, then select checkout. Image 26: 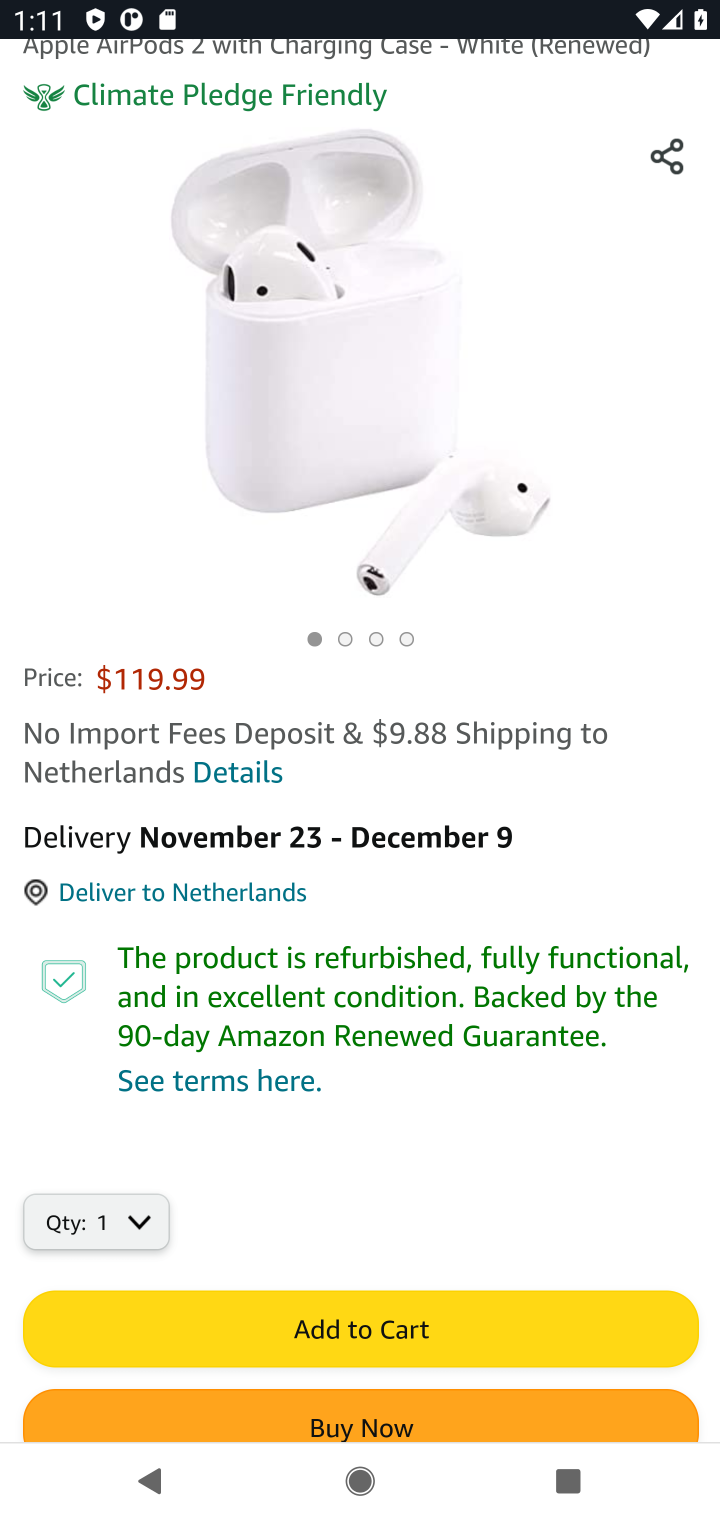
Step 26: click (506, 1339)
Your task to perform on an android device: Clear all items from cart on amazon. Search for apple airpods on amazon, select the first entry, add it to the cart, then select checkout. Image 27: 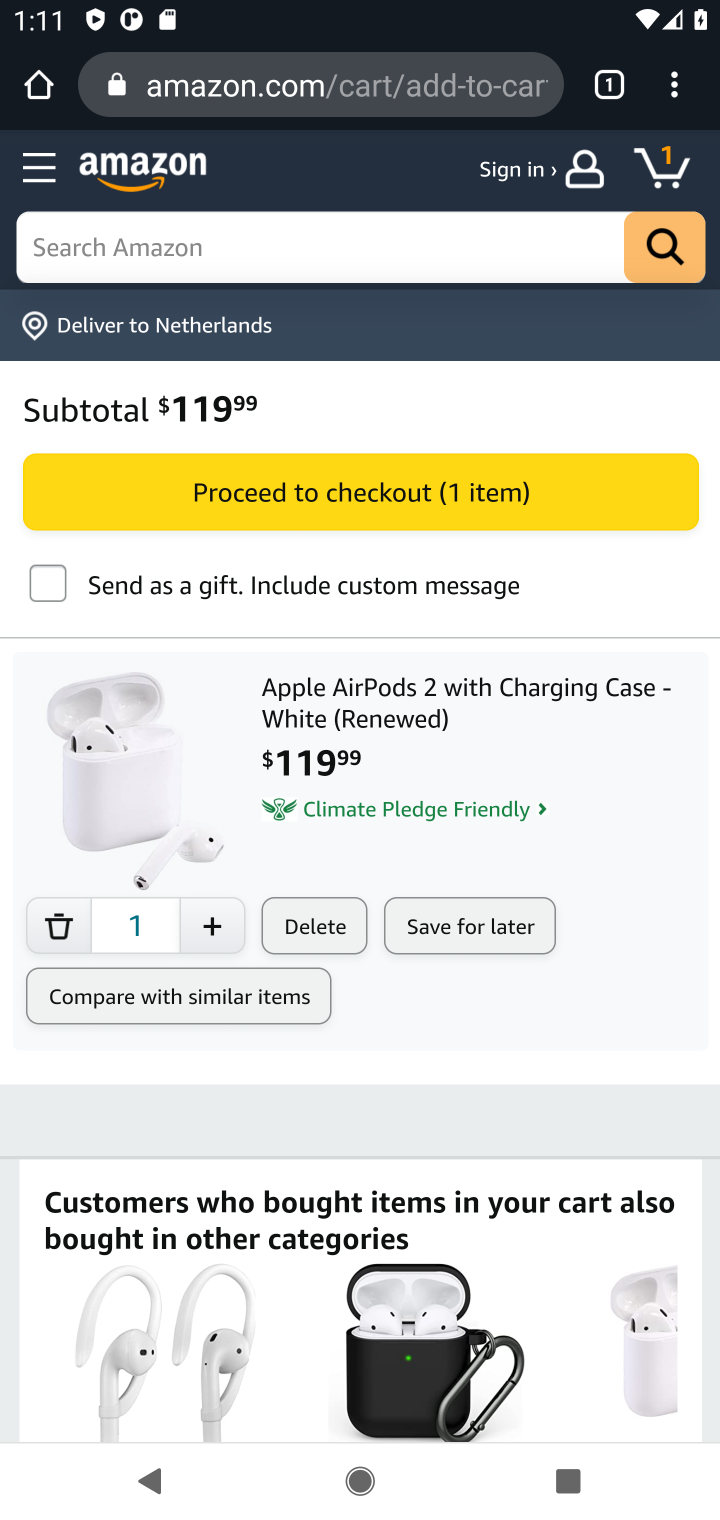
Step 27: click (442, 495)
Your task to perform on an android device: Clear all items from cart on amazon. Search for apple airpods on amazon, select the first entry, add it to the cart, then select checkout. Image 28: 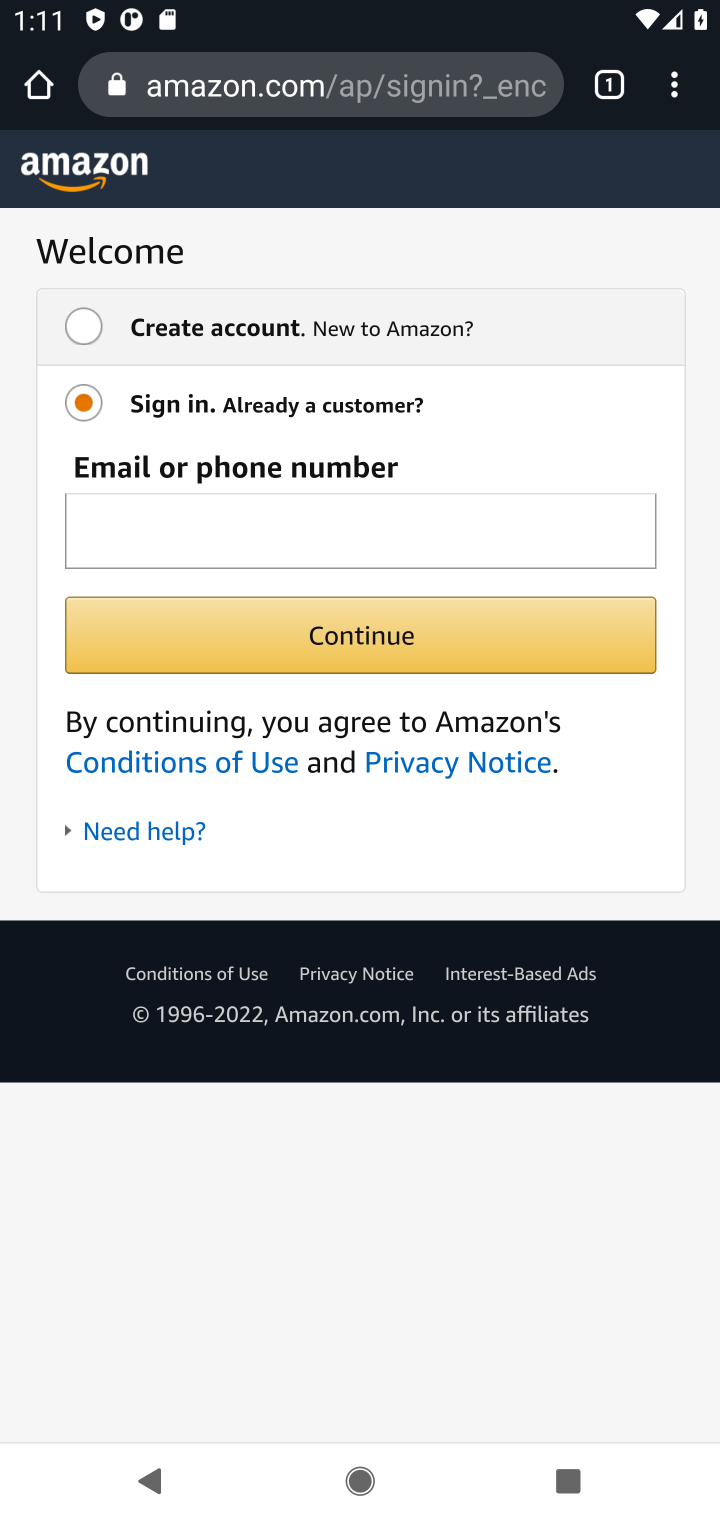
Step 28: task complete